Your task to perform on an android device: Open network settings Image 0: 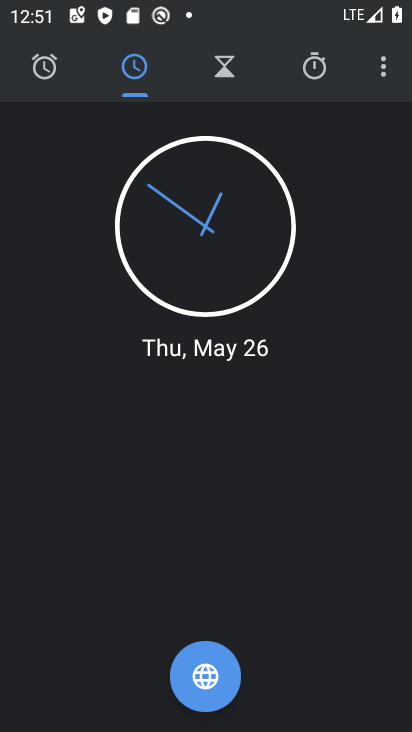
Step 0: press home button
Your task to perform on an android device: Open network settings Image 1: 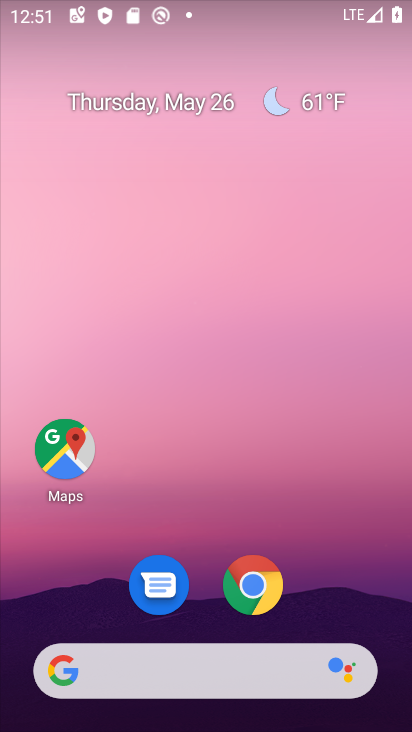
Step 1: drag from (188, 506) to (222, 54)
Your task to perform on an android device: Open network settings Image 2: 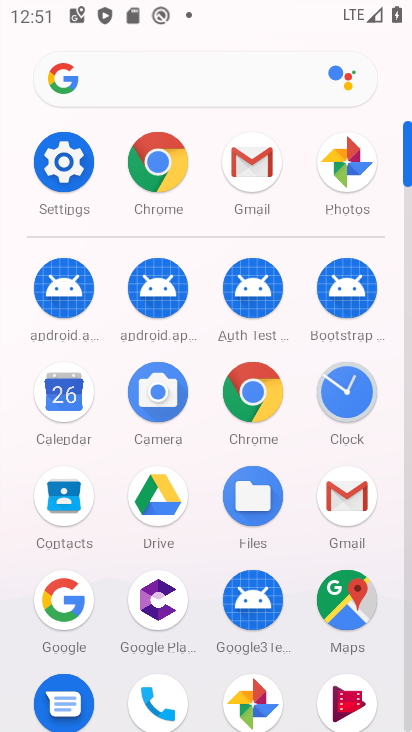
Step 2: click (64, 159)
Your task to perform on an android device: Open network settings Image 3: 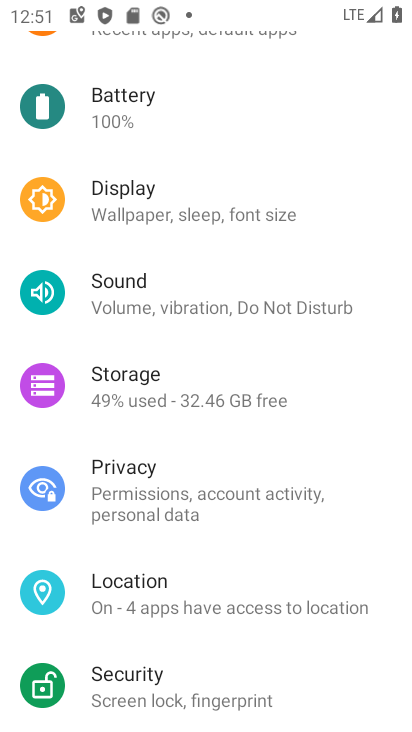
Step 3: drag from (189, 254) to (218, 612)
Your task to perform on an android device: Open network settings Image 4: 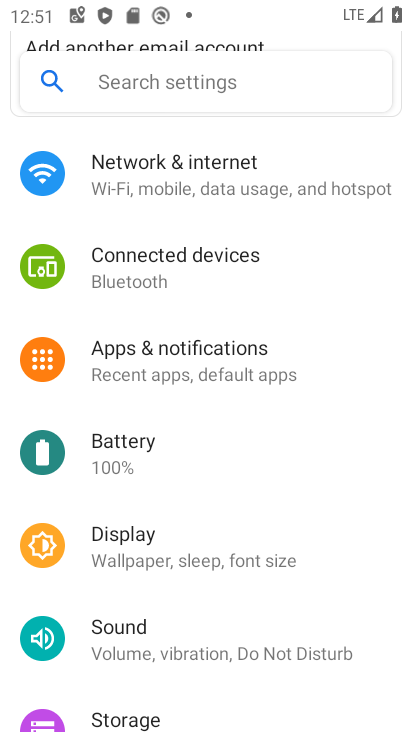
Step 4: click (207, 176)
Your task to perform on an android device: Open network settings Image 5: 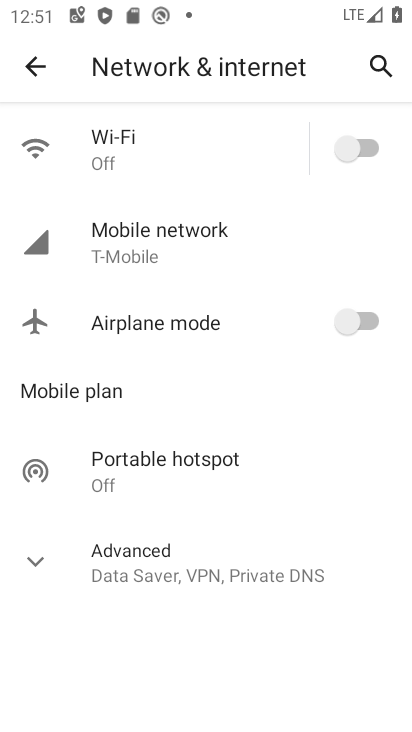
Step 5: task complete